Your task to perform on an android device: Open Google Chrome and open the bookmarks view Image 0: 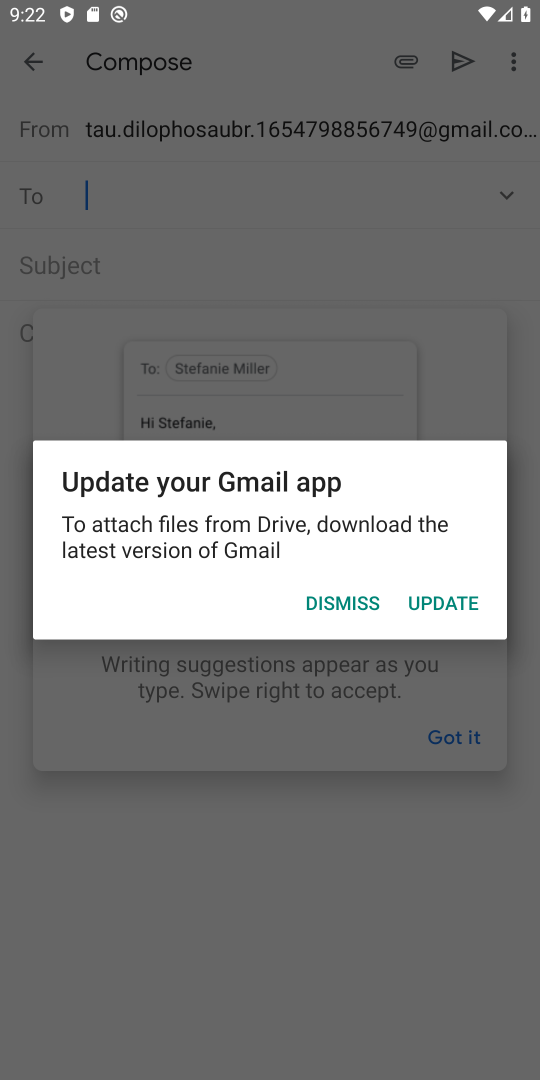
Step 0: press home button
Your task to perform on an android device: Open Google Chrome and open the bookmarks view Image 1: 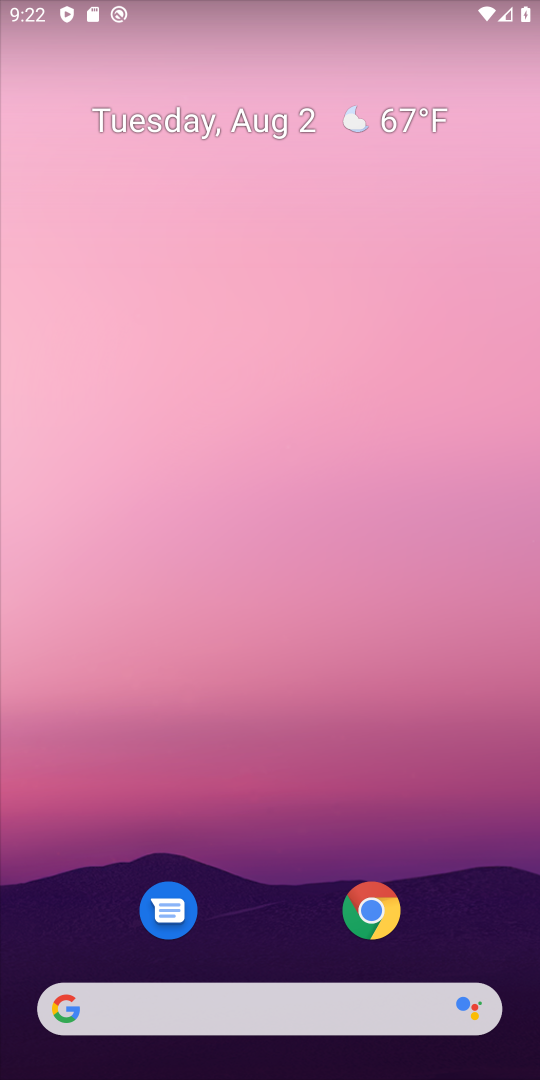
Step 1: drag from (211, 908) to (238, 325)
Your task to perform on an android device: Open Google Chrome and open the bookmarks view Image 2: 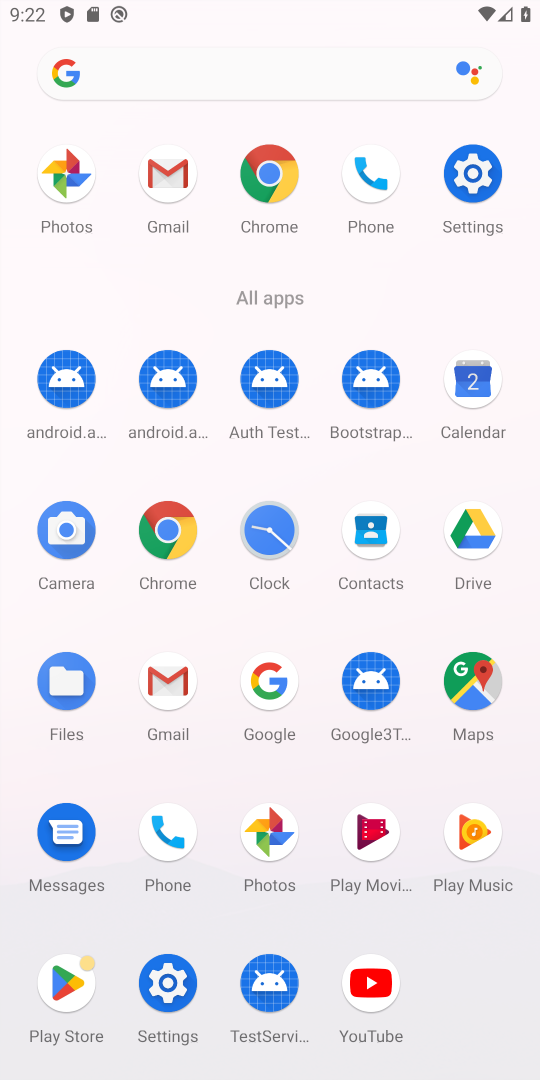
Step 2: click (278, 170)
Your task to perform on an android device: Open Google Chrome and open the bookmarks view Image 3: 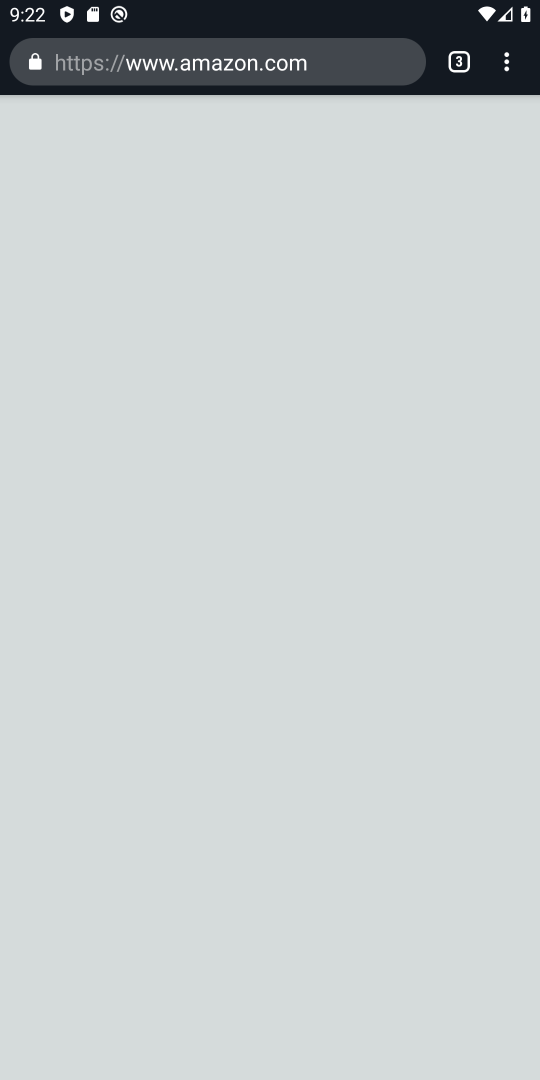
Step 3: click (519, 69)
Your task to perform on an android device: Open Google Chrome and open the bookmarks view Image 4: 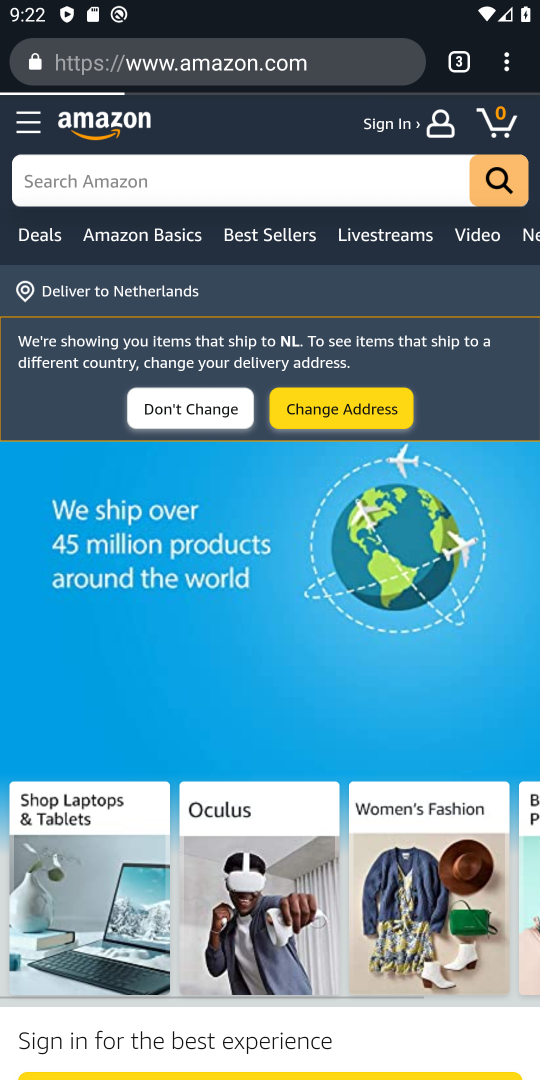
Step 4: click (513, 71)
Your task to perform on an android device: Open Google Chrome and open the bookmarks view Image 5: 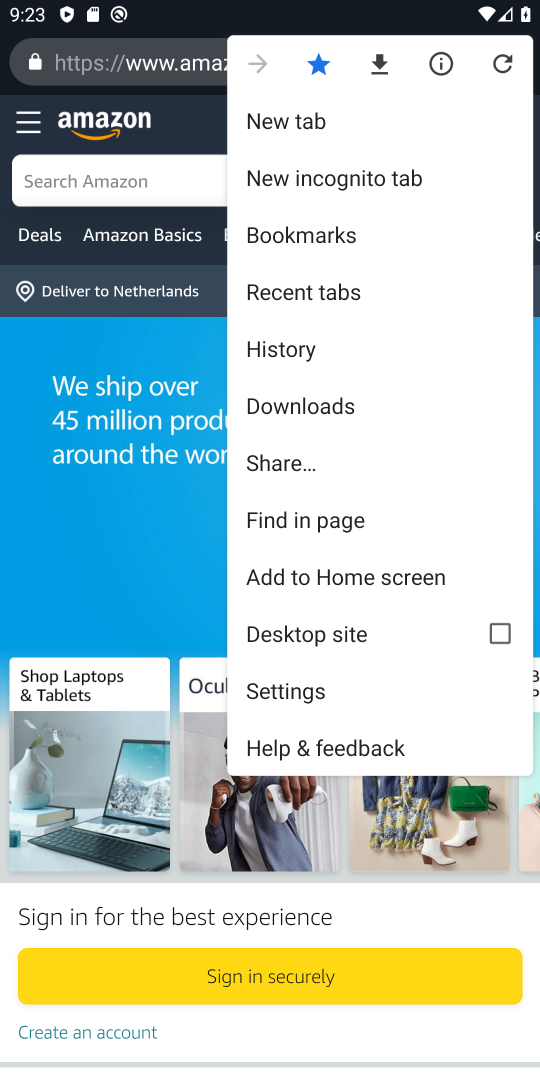
Step 5: task complete